Your task to perform on an android device: change your default location settings in chrome Image 0: 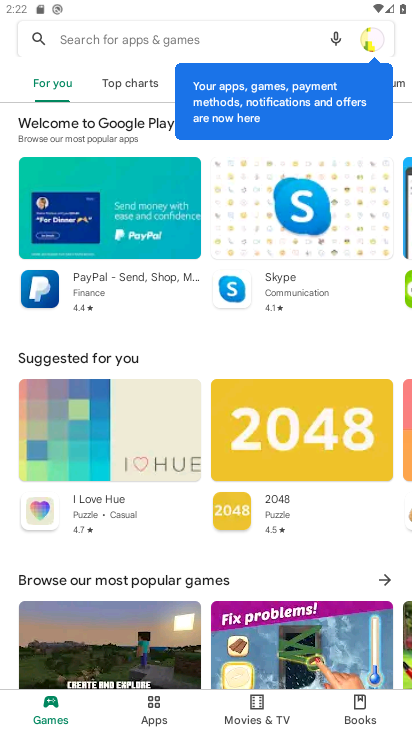
Step 0: press home button
Your task to perform on an android device: change your default location settings in chrome Image 1: 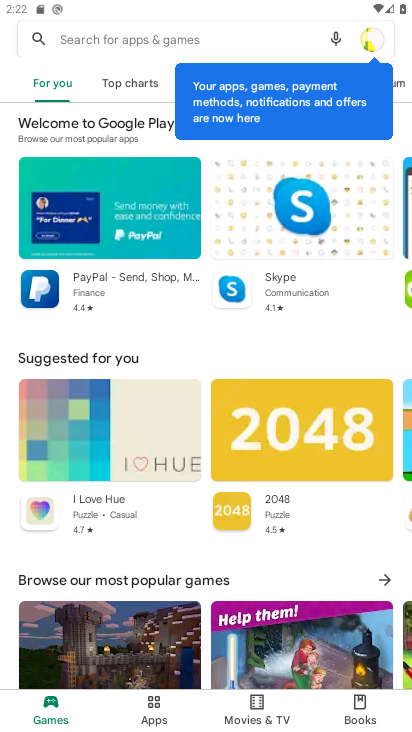
Step 1: press home button
Your task to perform on an android device: change your default location settings in chrome Image 2: 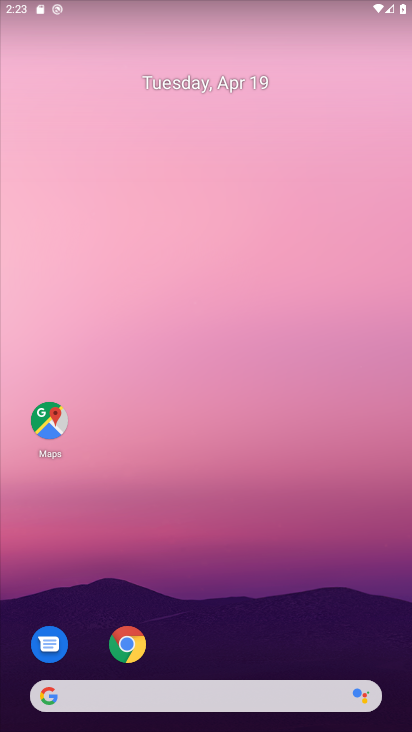
Step 2: click (118, 648)
Your task to perform on an android device: change your default location settings in chrome Image 3: 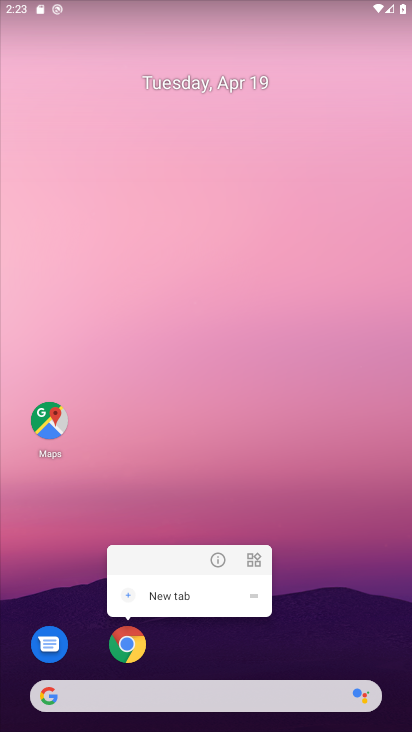
Step 3: click (129, 647)
Your task to perform on an android device: change your default location settings in chrome Image 4: 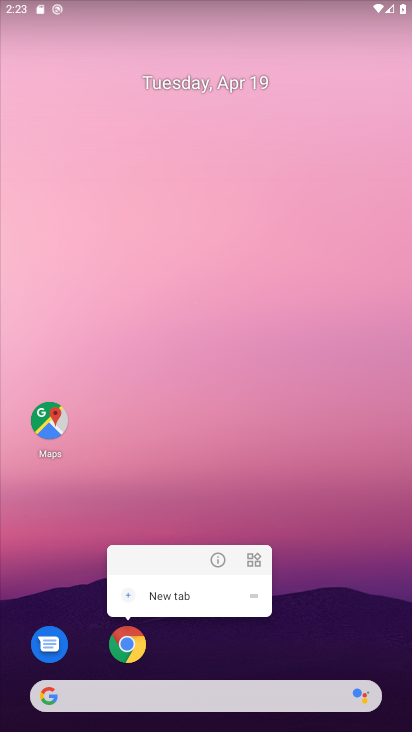
Step 4: click (129, 647)
Your task to perform on an android device: change your default location settings in chrome Image 5: 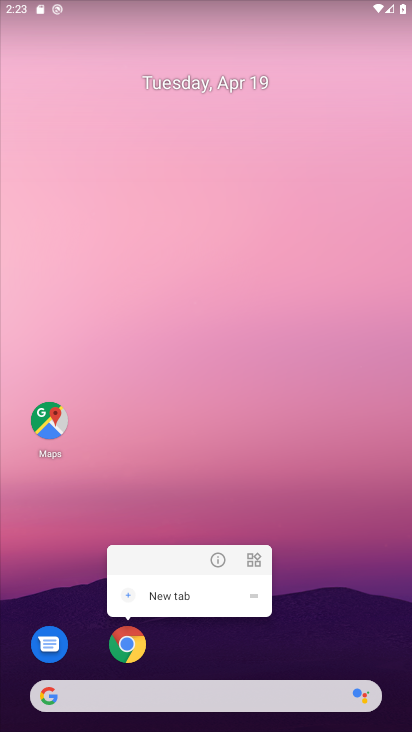
Step 5: click (132, 643)
Your task to perform on an android device: change your default location settings in chrome Image 6: 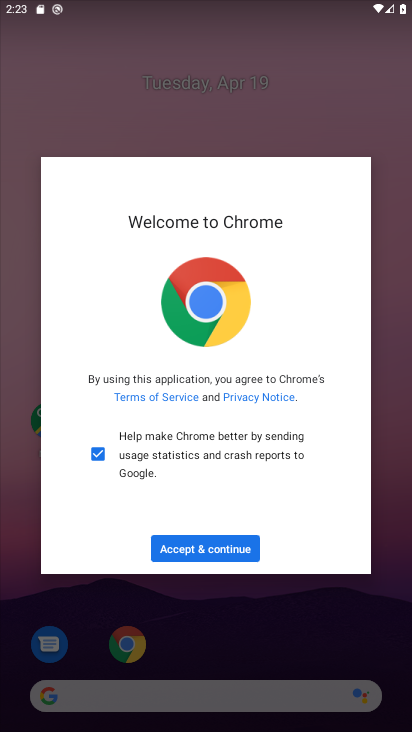
Step 6: click (199, 556)
Your task to perform on an android device: change your default location settings in chrome Image 7: 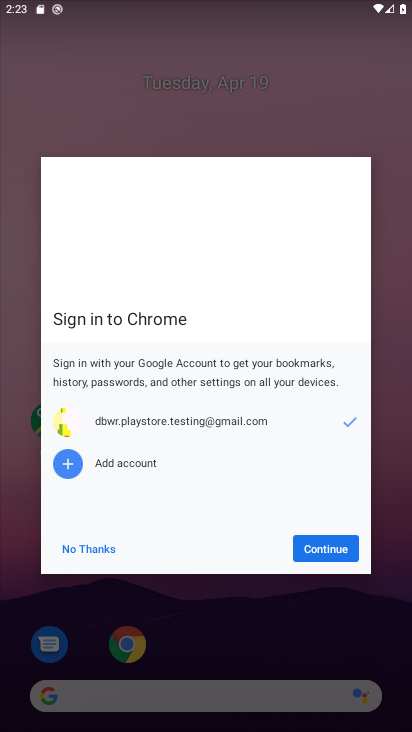
Step 7: click (298, 547)
Your task to perform on an android device: change your default location settings in chrome Image 8: 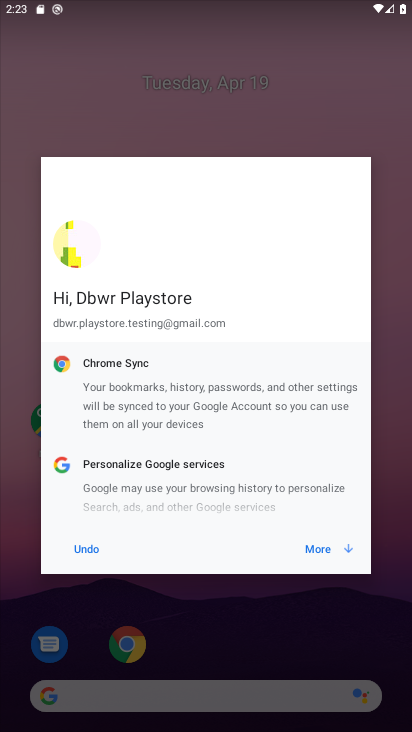
Step 8: click (298, 547)
Your task to perform on an android device: change your default location settings in chrome Image 9: 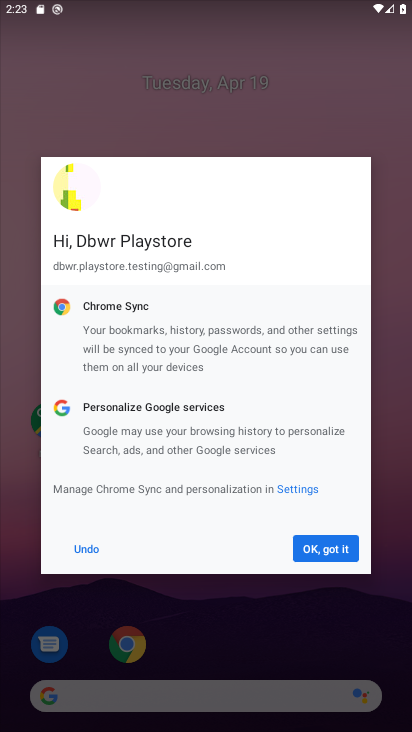
Step 9: click (298, 547)
Your task to perform on an android device: change your default location settings in chrome Image 10: 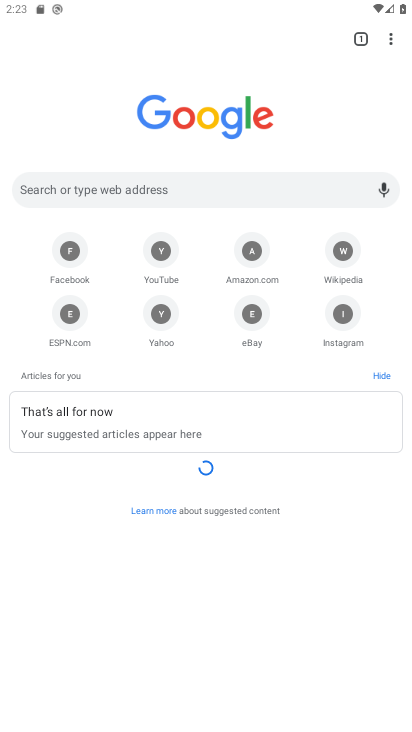
Step 10: click (388, 37)
Your task to perform on an android device: change your default location settings in chrome Image 11: 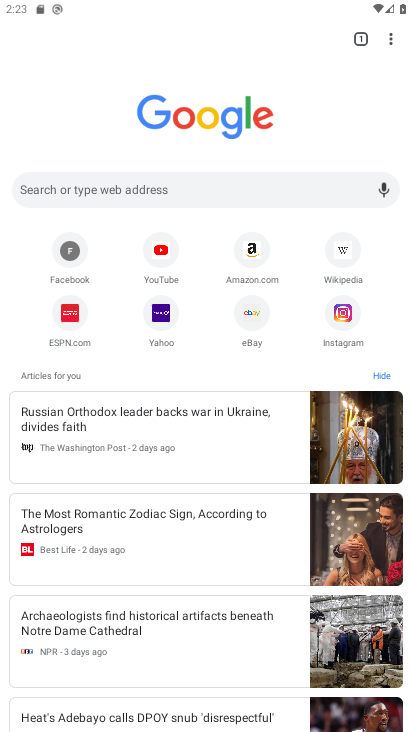
Step 11: click (389, 37)
Your task to perform on an android device: change your default location settings in chrome Image 12: 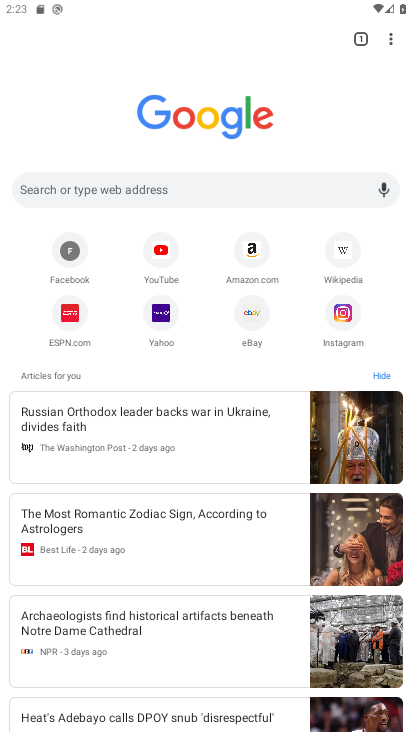
Step 12: click (381, 46)
Your task to perform on an android device: change your default location settings in chrome Image 13: 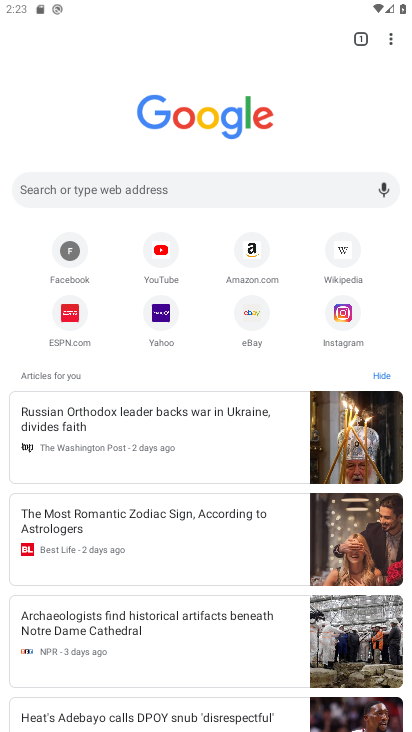
Step 13: click (390, 37)
Your task to perform on an android device: change your default location settings in chrome Image 14: 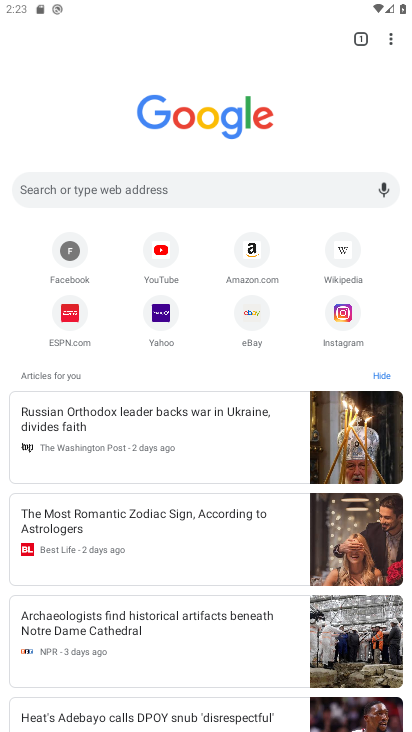
Step 14: click (392, 38)
Your task to perform on an android device: change your default location settings in chrome Image 15: 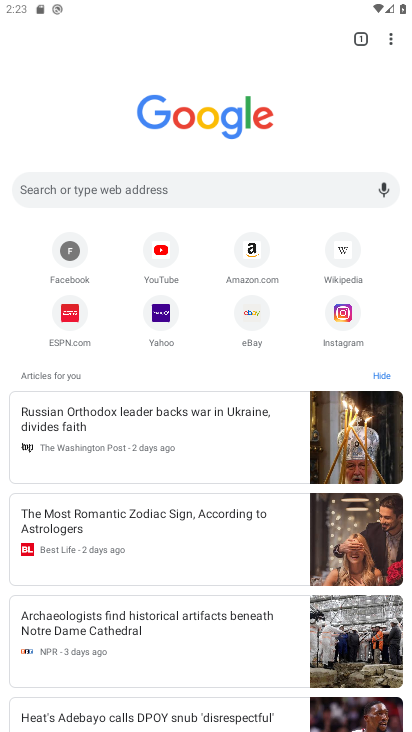
Step 15: click (395, 45)
Your task to perform on an android device: change your default location settings in chrome Image 16: 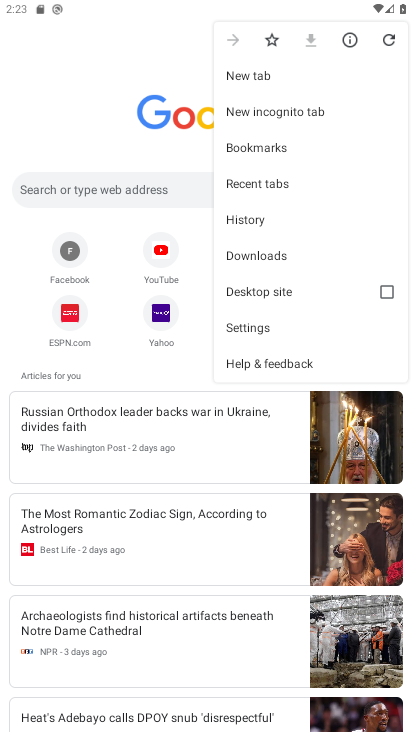
Step 16: click (248, 328)
Your task to perform on an android device: change your default location settings in chrome Image 17: 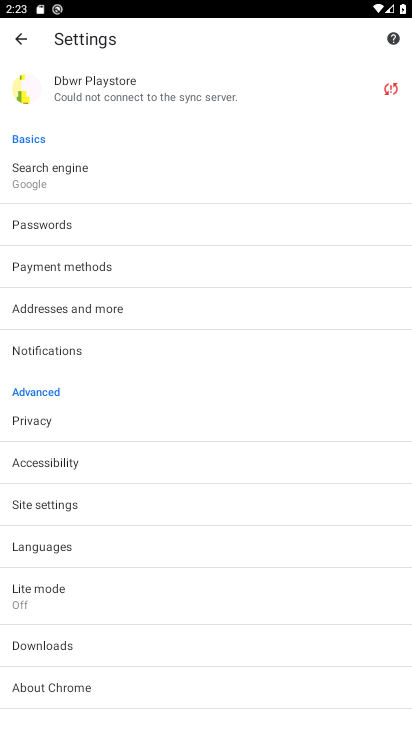
Step 17: click (35, 509)
Your task to perform on an android device: change your default location settings in chrome Image 18: 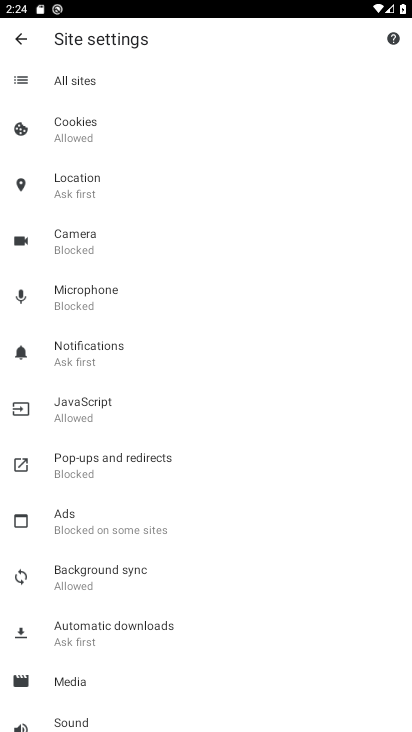
Step 18: click (86, 188)
Your task to perform on an android device: change your default location settings in chrome Image 19: 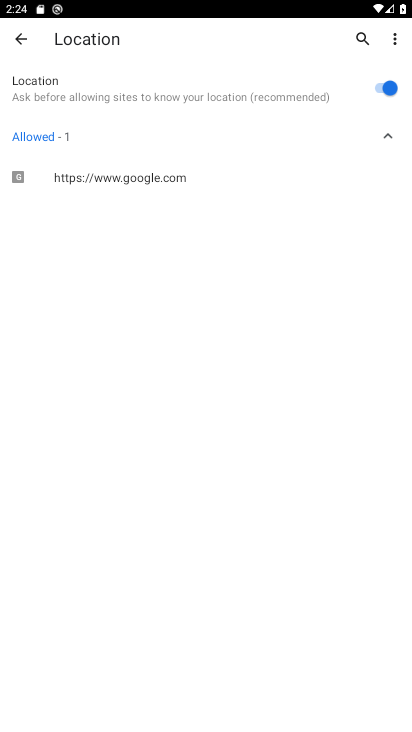
Step 19: click (387, 89)
Your task to perform on an android device: change your default location settings in chrome Image 20: 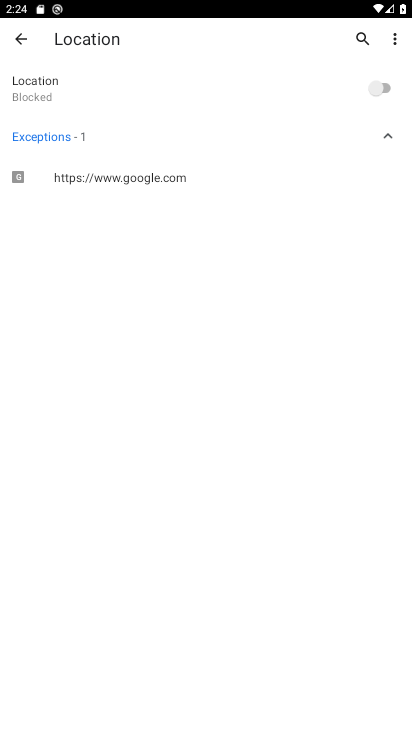
Step 20: task complete